Your task to perform on an android device: turn on wifi Image 0: 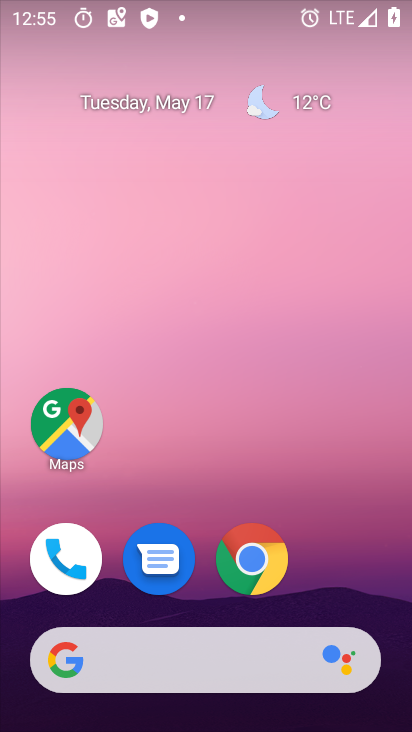
Step 0: drag from (318, 573) to (349, 120)
Your task to perform on an android device: turn on wifi Image 1: 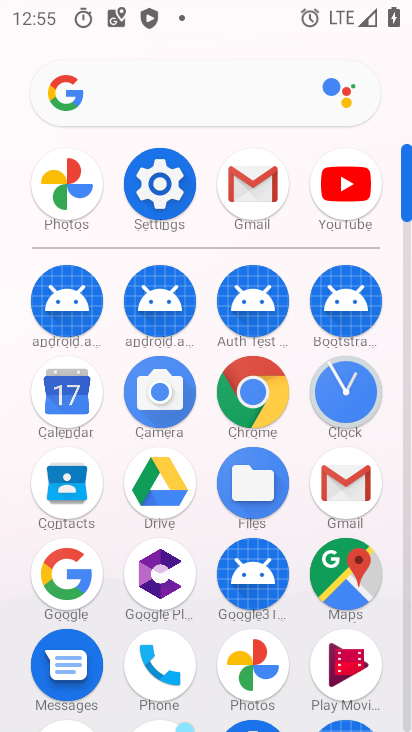
Step 1: click (161, 189)
Your task to perform on an android device: turn on wifi Image 2: 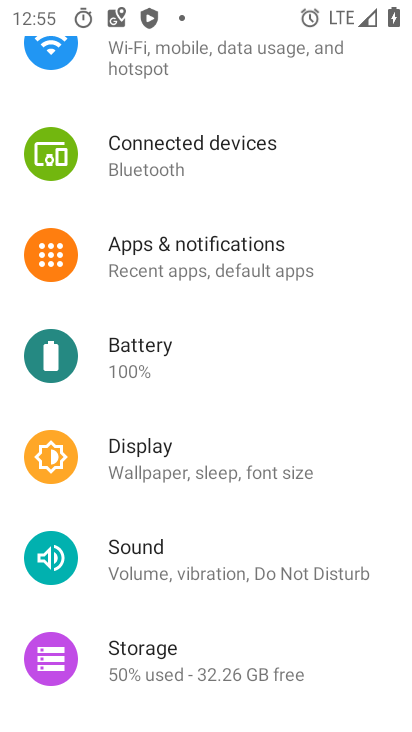
Step 2: drag from (238, 139) to (261, 591)
Your task to perform on an android device: turn on wifi Image 3: 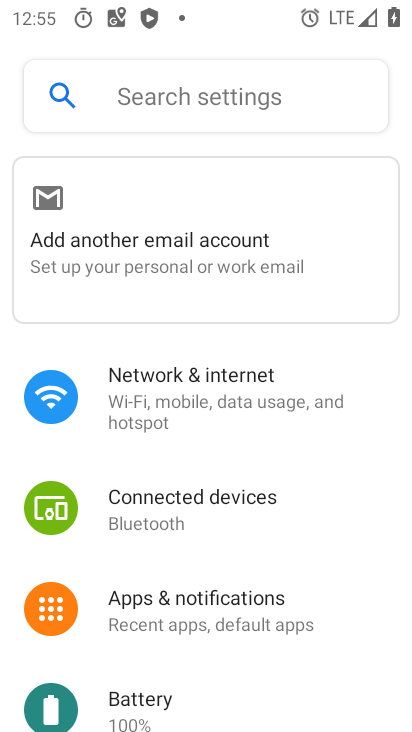
Step 3: click (210, 393)
Your task to perform on an android device: turn on wifi Image 4: 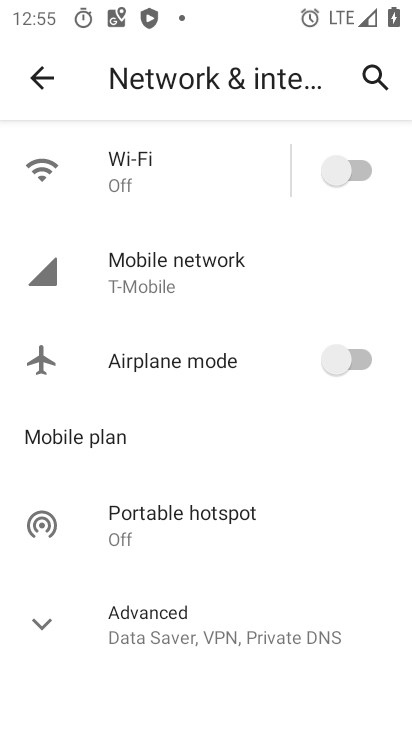
Step 4: click (354, 171)
Your task to perform on an android device: turn on wifi Image 5: 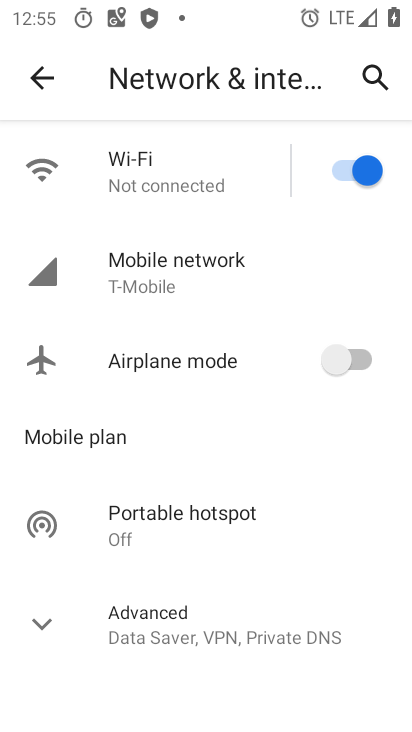
Step 5: task complete